Your task to perform on an android device: Open calendar and show me the first week of next month Image 0: 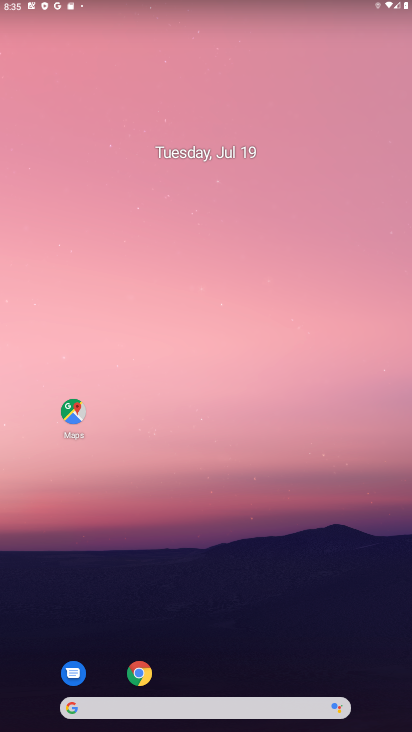
Step 0: drag from (277, 652) to (245, 77)
Your task to perform on an android device: Open calendar and show me the first week of next month Image 1: 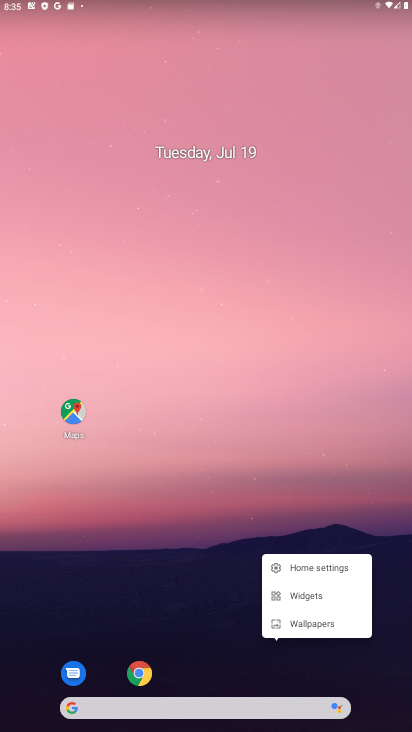
Step 1: click (180, 339)
Your task to perform on an android device: Open calendar and show me the first week of next month Image 2: 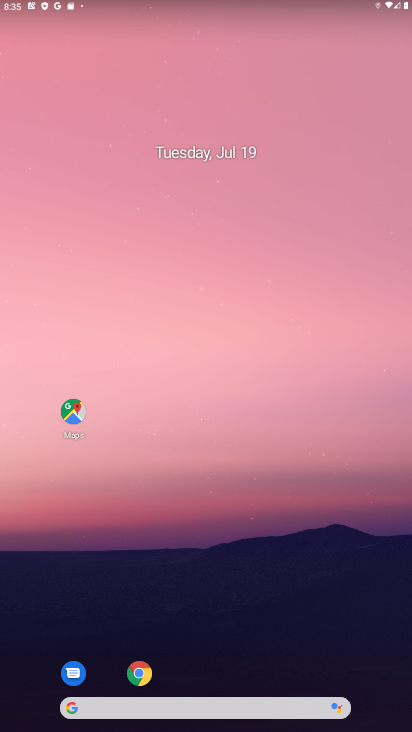
Step 2: drag from (234, 672) to (140, 49)
Your task to perform on an android device: Open calendar and show me the first week of next month Image 3: 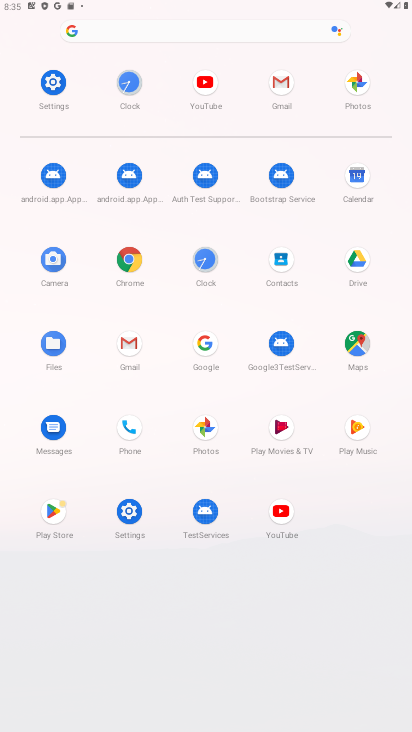
Step 3: click (371, 188)
Your task to perform on an android device: Open calendar and show me the first week of next month Image 4: 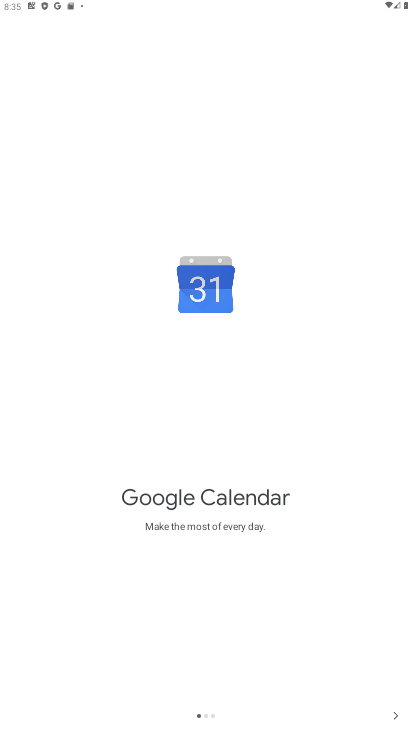
Step 4: click (386, 722)
Your task to perform on an android device: Open calendar and show me the first week of next month Image 5: 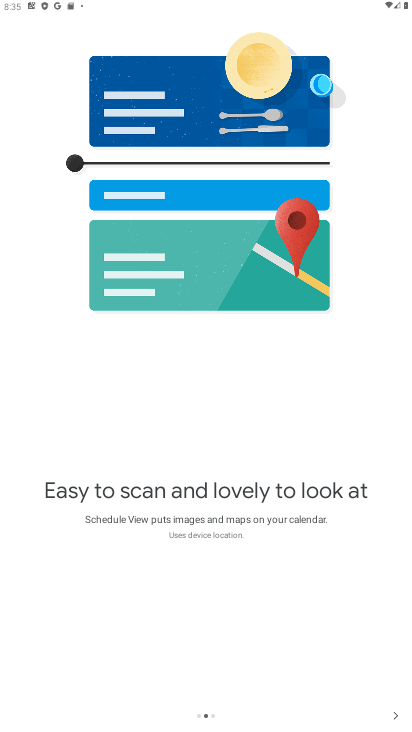
Step 5: click (388, 716)
Your task to perform on an android device: Open calendar and show me the first week of next month Image 6: 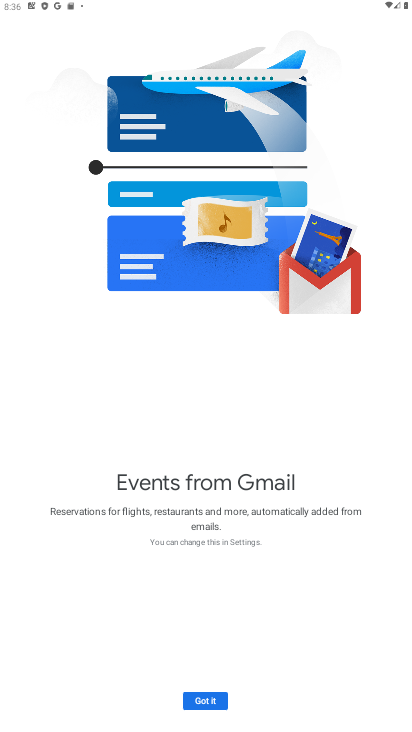
Step 6: click (203, 694)
Your task to perform on an android device: Open calendar and show me the first week of next month Image 7: 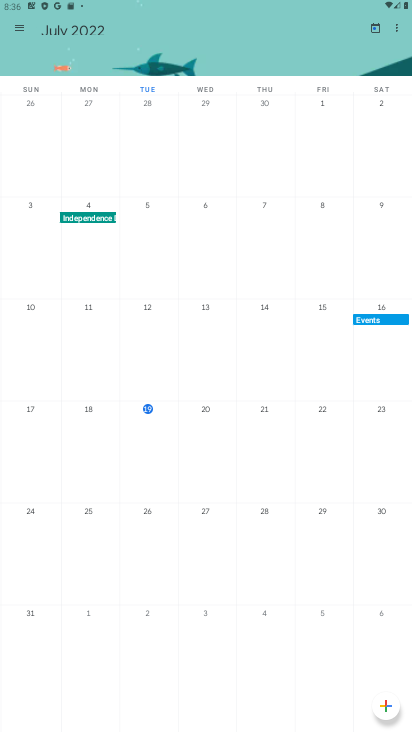
Step 7: task complete